Your task to perform on an android device: Go to settings Image 0: 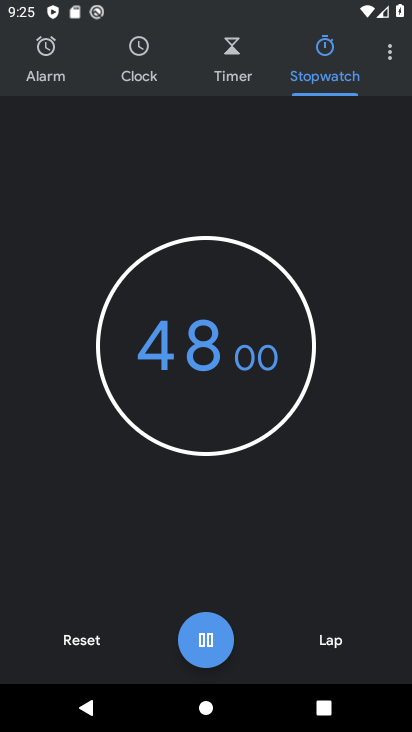
Step 0: press home button
Your task to perform on an android device: Go to settings Image 1: 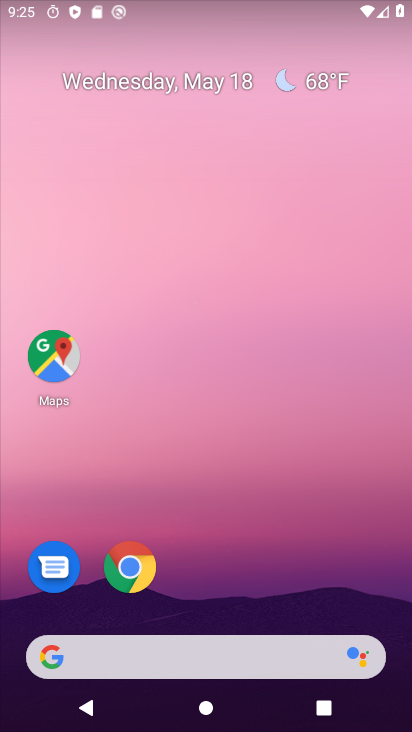
Step 1: drag from (260, 510) to (280, 113)
Your task to perform on an android device: Go to settings Image 2: 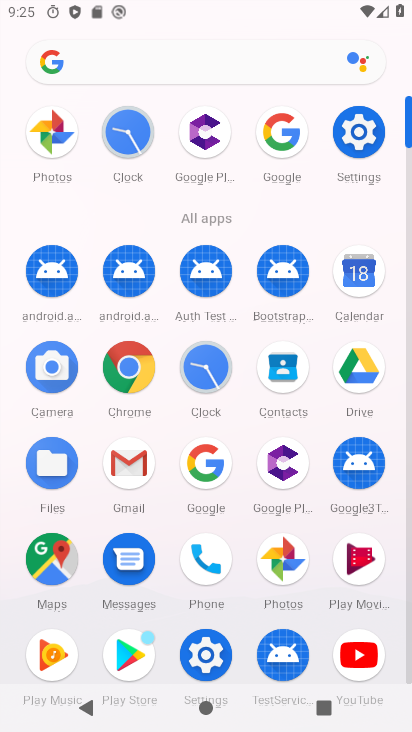
Step 2: click (355, 134)
Your task to perform on an android device: Go to settings Image 3: 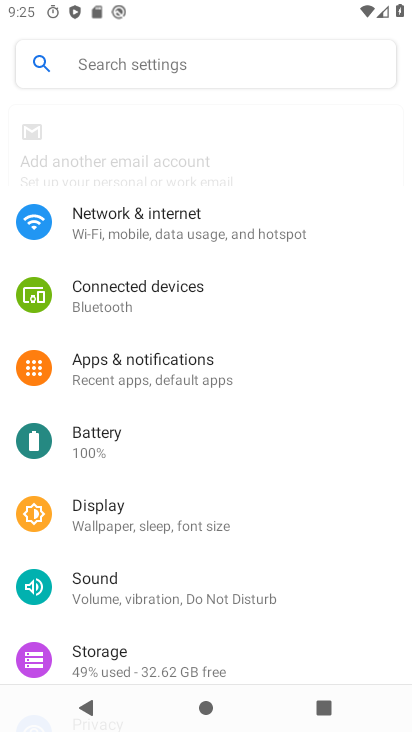
Step 3: task complete